Your task to perform on an android device: When is my next appointment? Image 0: 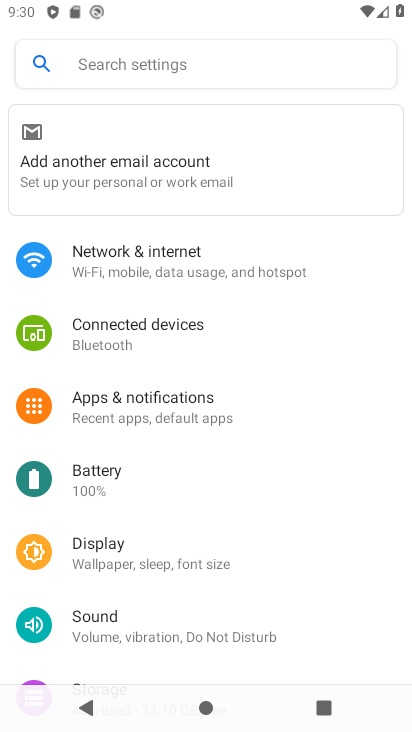
Step 0: press home button
Your task to perform on an android device: When is my next appointment? Image 1: 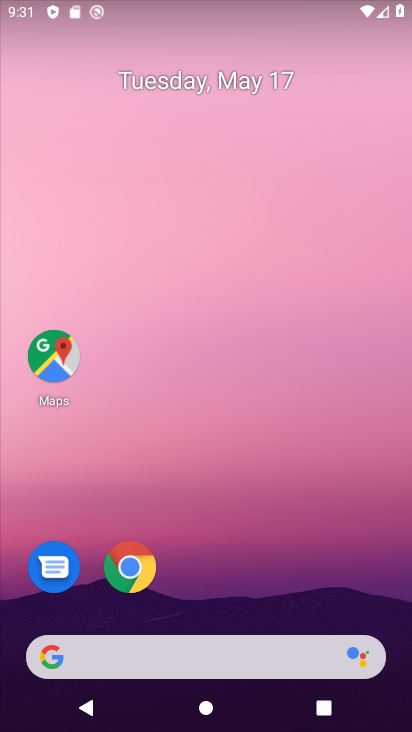
Step 1: drag from (274, 580) to (231, 183)
Your task to perform on an android device: When is my next appointment? Image 2: 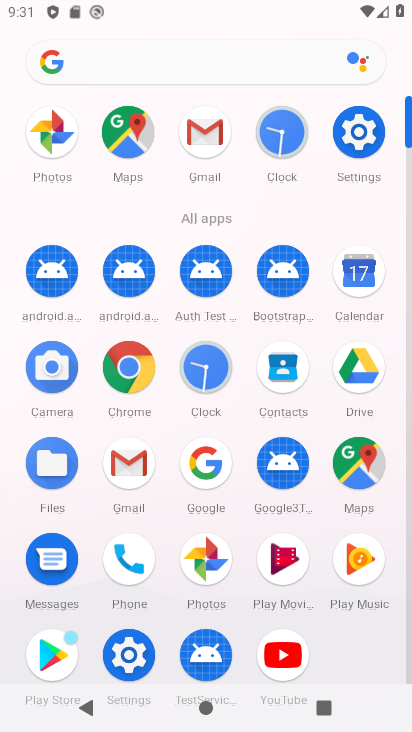
Step 2: click (375, 289)
Your task to perform on an android device: When is my next appointment? Image 3: 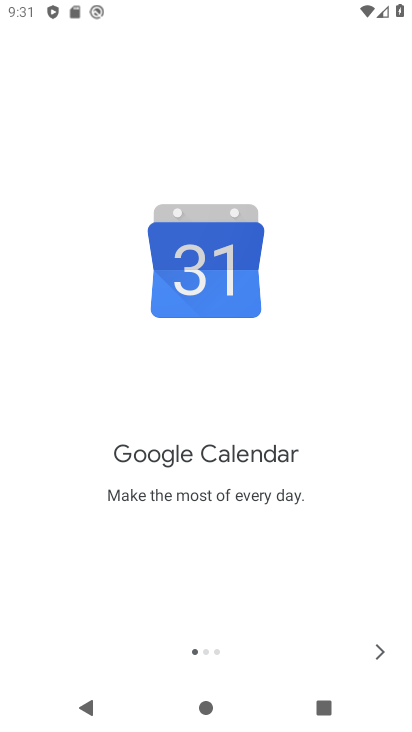
Step 3: click (375, 659)
Your task to perform on an android device: When is my next appointment? Image 4: 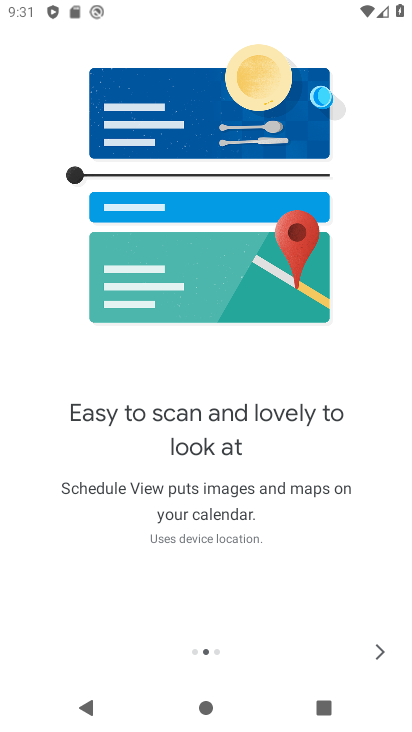
Step 4: click (375, 659)
Your task to perform on an android device: When is my next appointment? Image 5: 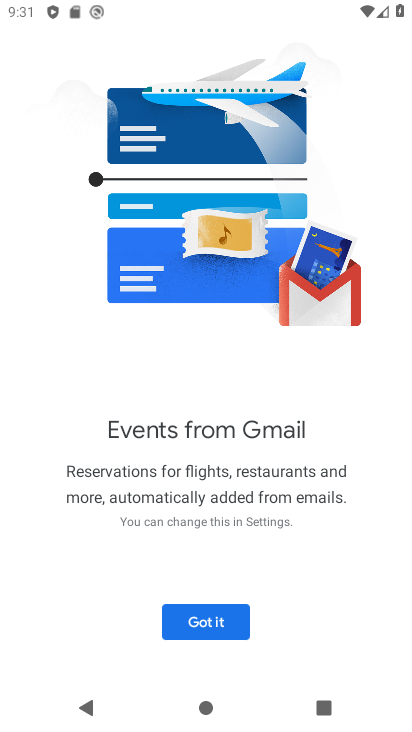
Step 5: click (223, 613)
Your task to perform on an android device: When is my next appointment? Image 6: 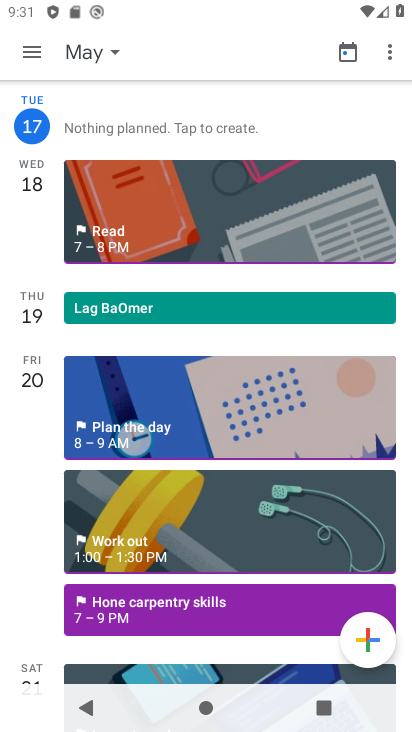
Step 6: task complete